Your task to perform on an android device: toggle javascript in the chrome app Image 0: 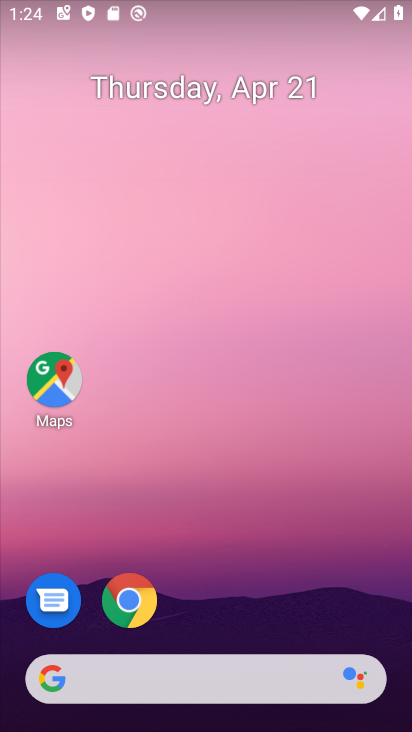
Step 0: click (145, 606)
Your task to perform on an android device: toggle javascript in the chrome app Image 1: 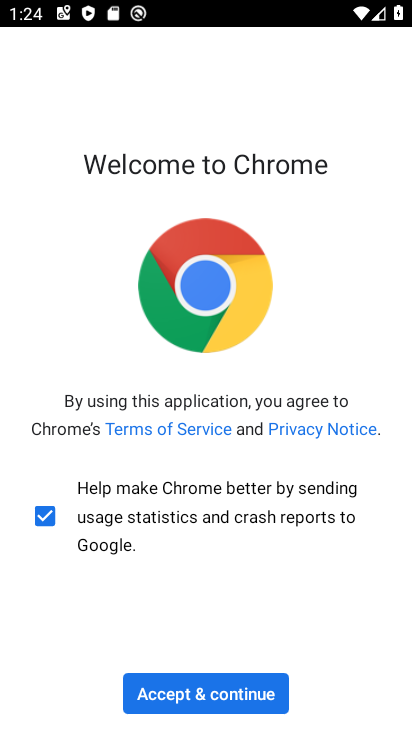
Step 1: click (203, 691)
Your task to perform on an android device: toggle javascript in the chrome app Image 2: 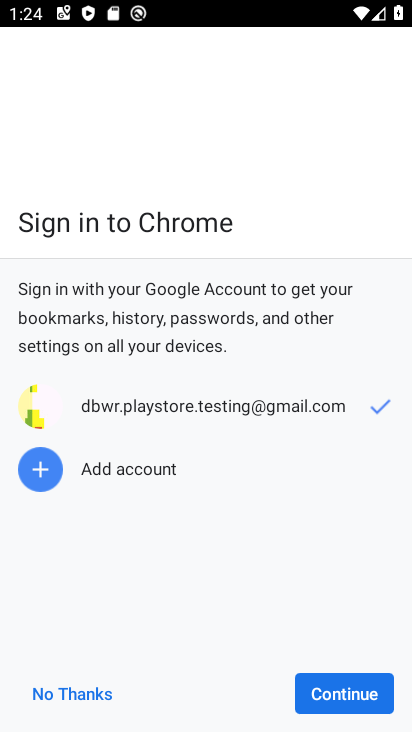
Step 2: click (324, 697)
Your task to perform on an android device: toggle javascript in the chrome app Image 3: 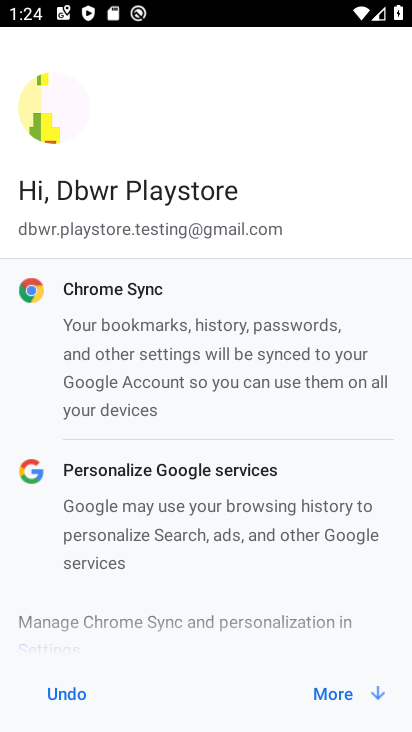
Step 3: click (324, 697)
Your task to perform on an android device: toggle javascript in the chrome app Image 4: 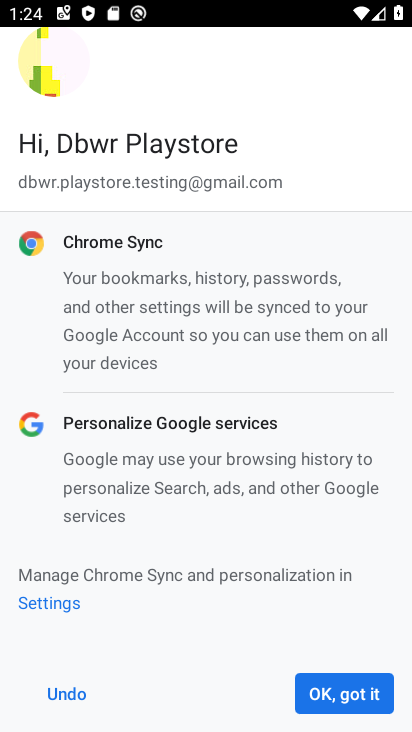
Step 4: click (323, 696)
Your task to perform on an android device: toggle javascript in the chrome app Image 5: 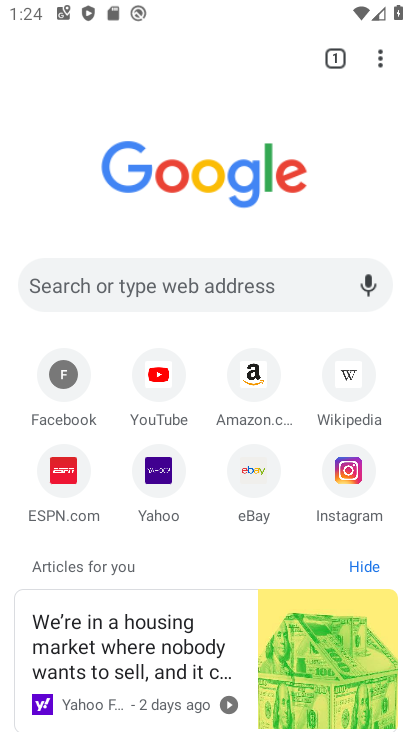
Step 5: click (374, 62)
Your task to perform on an android device: toggle javascript in the chrome app Image 6: 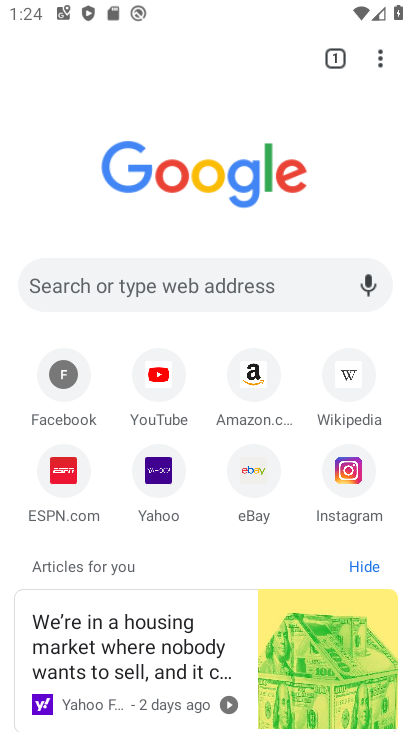
Step 6: drag from (374, 70) to (209, 500)
Your task to perform on an android device: toggle javascript in the chrome app Image 7: 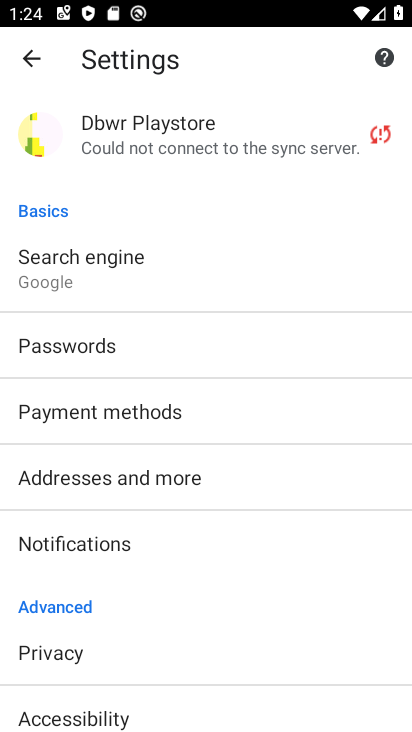
Step 7: drag from (157, 587) to (168, 335)
Your task to perform on an android device: toggle javascript in the chrome app Image 8: 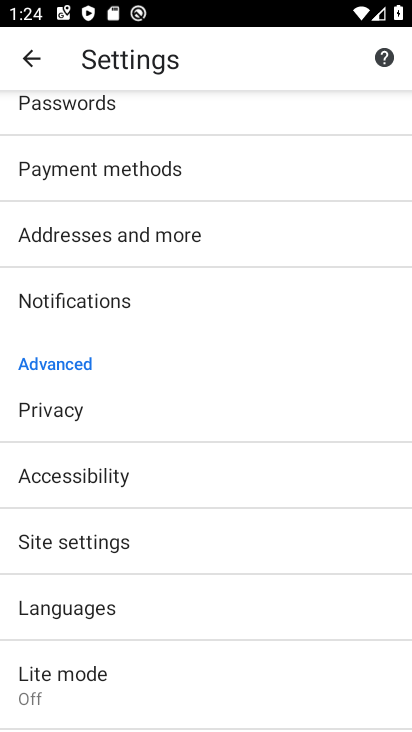
Step 8: click (91, 546)
Your task to perform on an android device: toggle javascript in the chrome app Image 9: 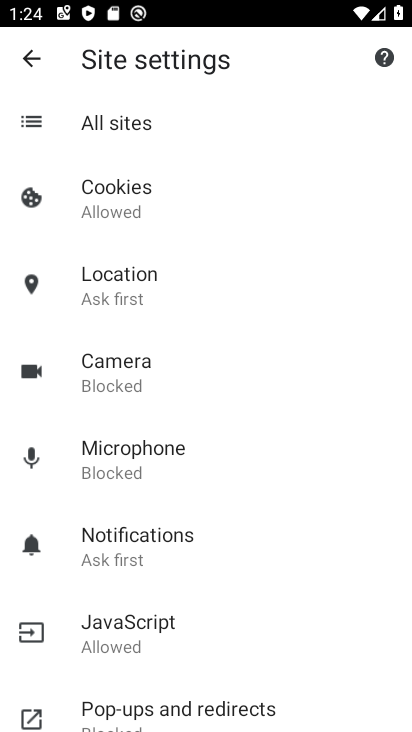
Step 9: click (130, 625)
Your task to perform on an android device: toggle javascript in the chrome app Image 10: 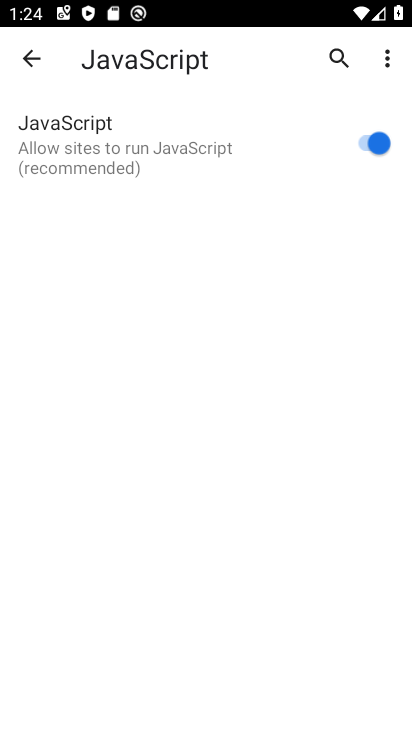
Step 10: click (379, 138)
Your task to perform on an android device: toggle javascript in the chrome app Image 11: 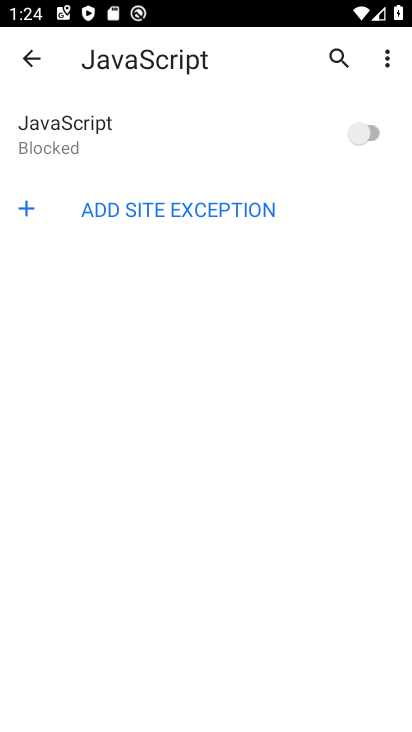
Step 11: task complete